Your task to perform on an android device: add a contact in the contacts app Image 0: 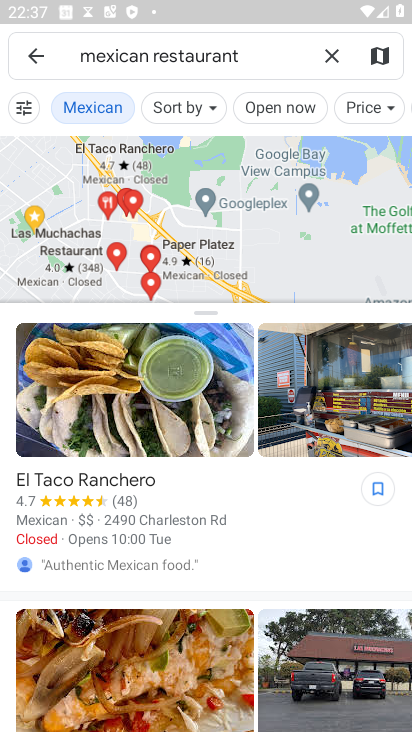
Step 0: press home button
Your task to perform on an android device: add a contact in the contacts app Image 1: 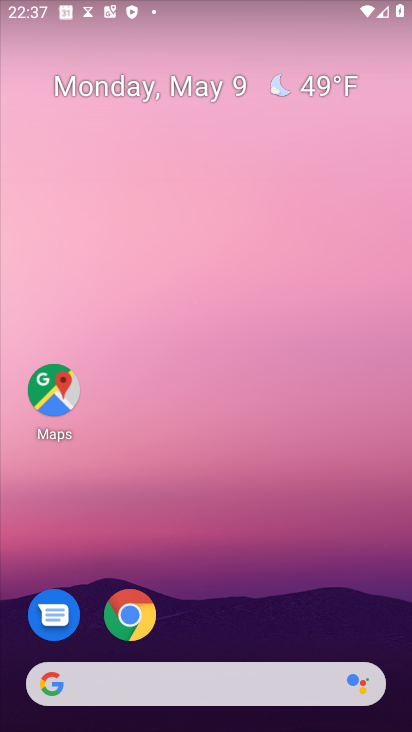
Step 1: drag from (298, 626) to (305, 170)
Your task to perform on an android device: add a contact in the contacts app Image 2: 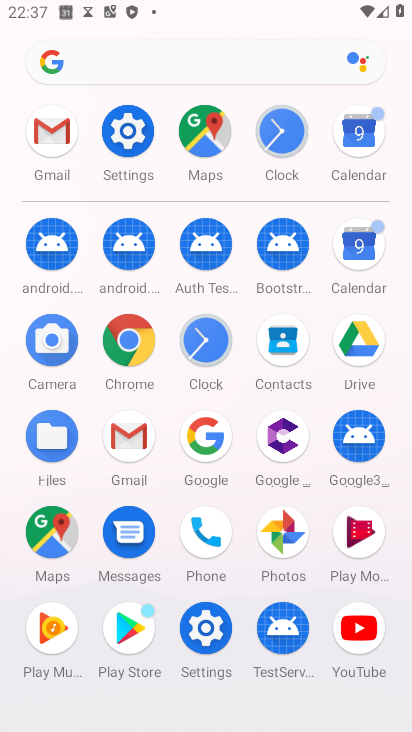
Step 2: click (282, 354)
Your task to perform on an android device: add a contact in the contacts app Image 3: 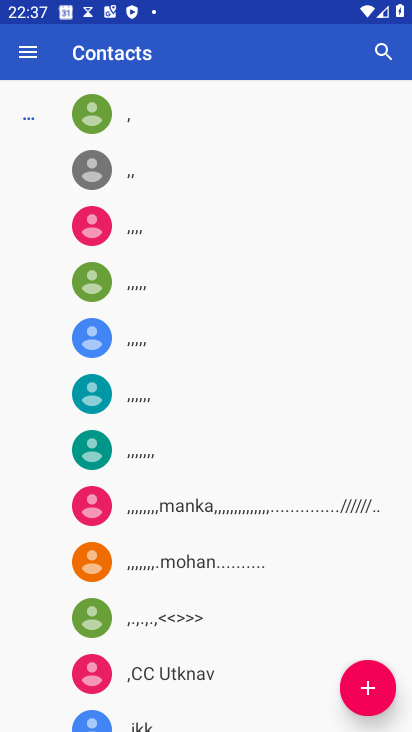
Step 3: click (364, 676)
Your task to perform on an android device: add a contact in the contacts app Image 4: 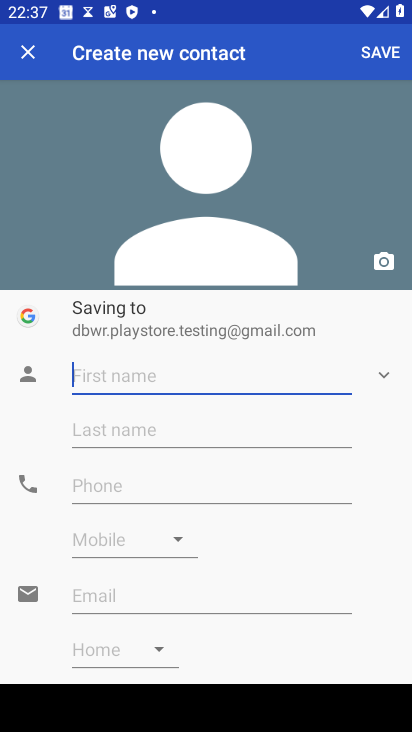
Step 4: click (155, 386)
Your task to perform on an android device: add a contact in the contacts app Image 5: 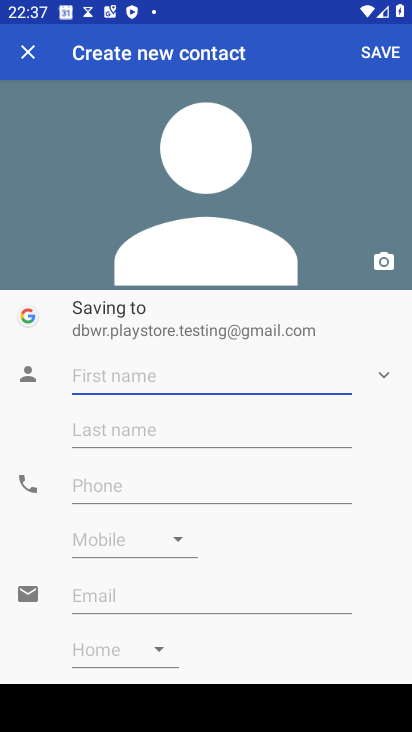
Step 5: type ""
Your task to perform on an android device: add a contact in the contacts app Image 6: 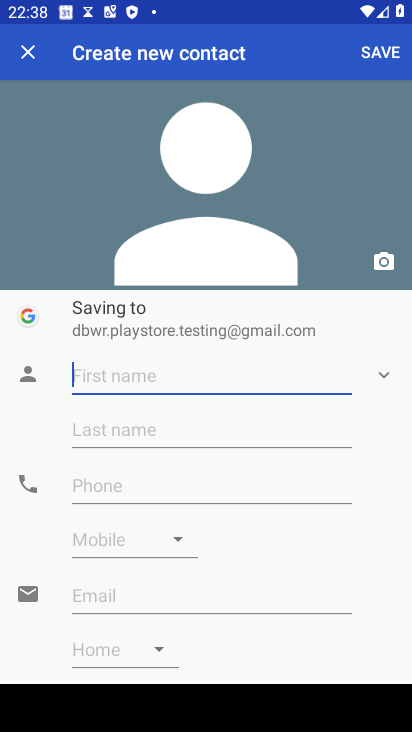
Step 6: type "tigger"
Your task to perform on an android device: add a contact in the contacts app Image 7: 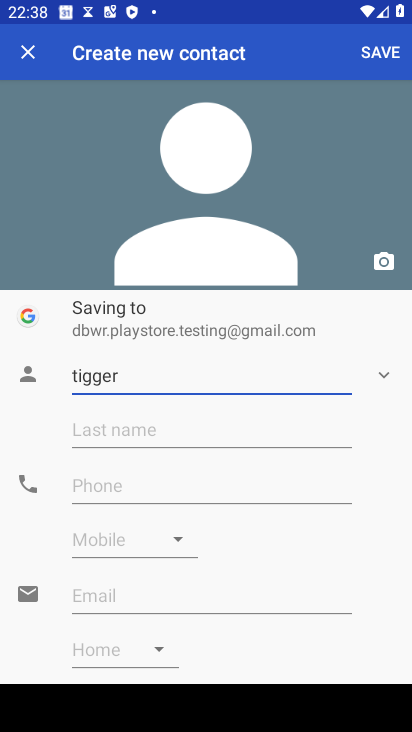
Step 7: click (169, 492)
Your task to perform on an android device: add a contact in the contacts app Image 8: 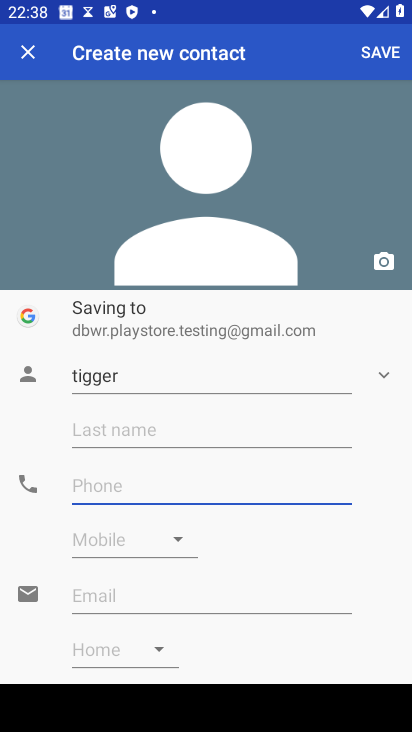
Step 8: type "86866687678"
Your task to perform on an android device: add a contact in the contacts app Image 9: 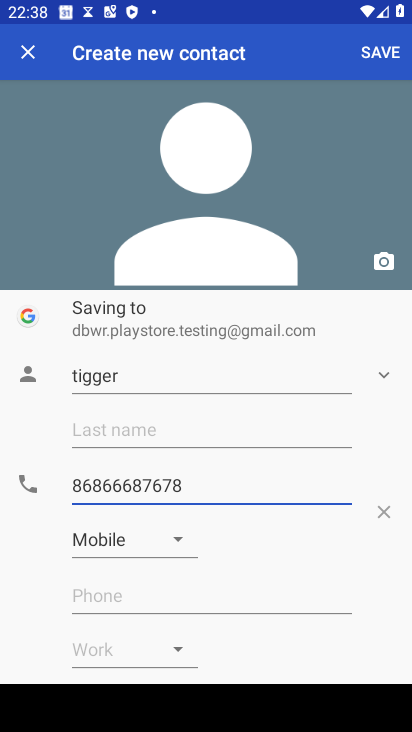
Step 9: click (390, 52)
Your task to perform on an android device: add a contact in the contacts app Image 10: 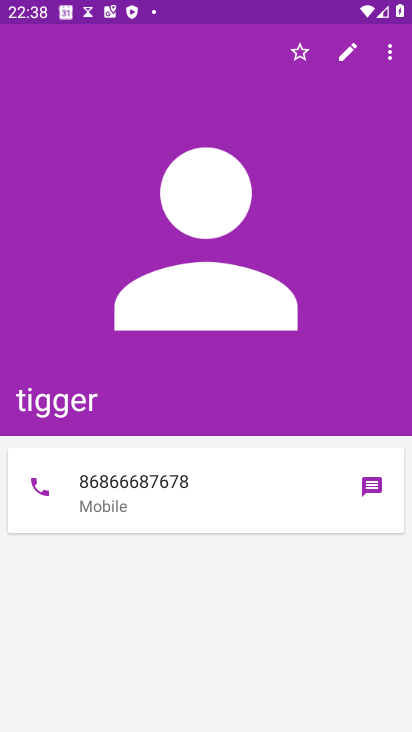
Step 10: task complete